Your task to perform on an android device: open a new tab in the chrome app Image 0: 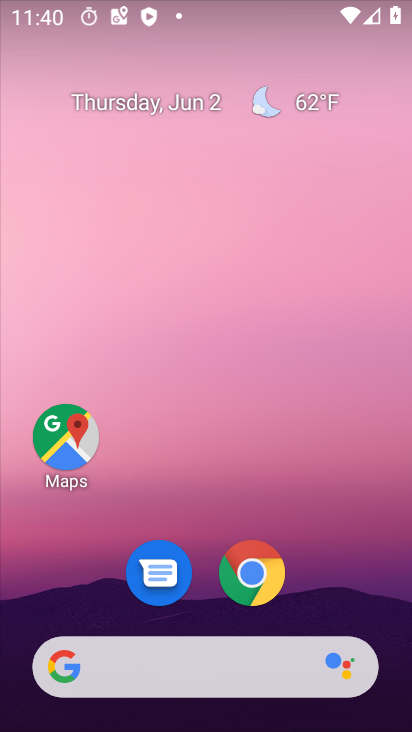
Step 0: click (334, 2)
Your task to perform on an android device: open a new tab in the chrome app Image 1: 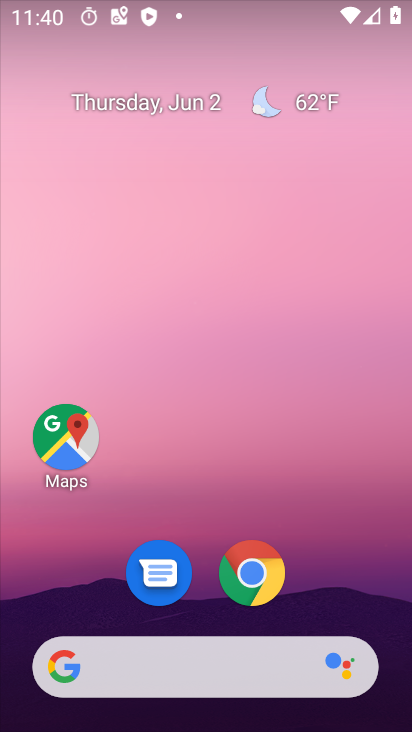
Step 1: drag from (238, 670) to (263, 12)
Your task to perform on an android device: open a new tab in the chrome app Image 2: 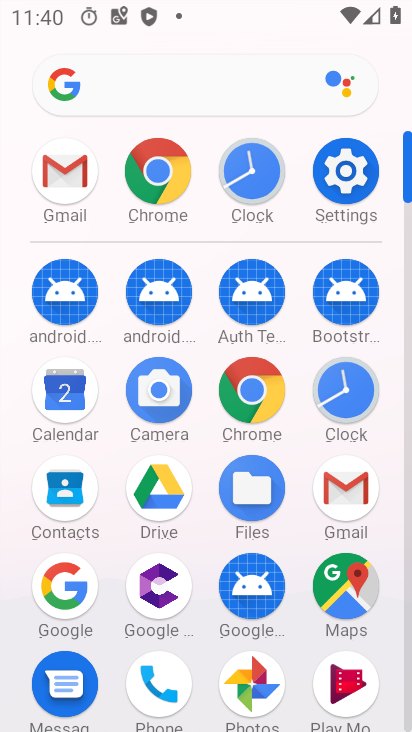
Step 2: click (237, 393)
Your task to perform on an android device: open a new tab in the chrome app Image 3: 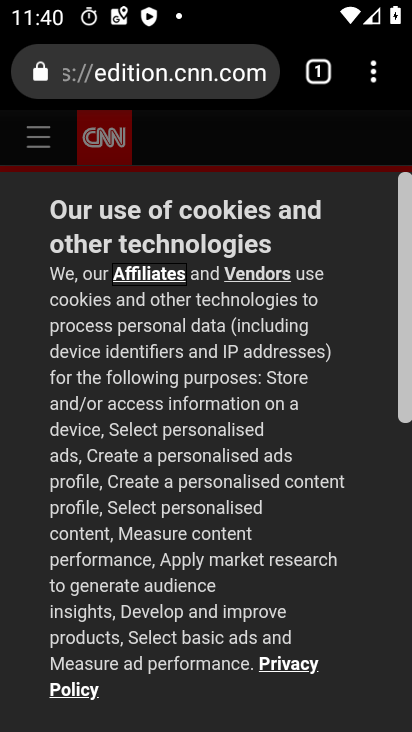
Step 3: task complete